Your task to perform on an android device: Open settings on Google Maps Image 0: 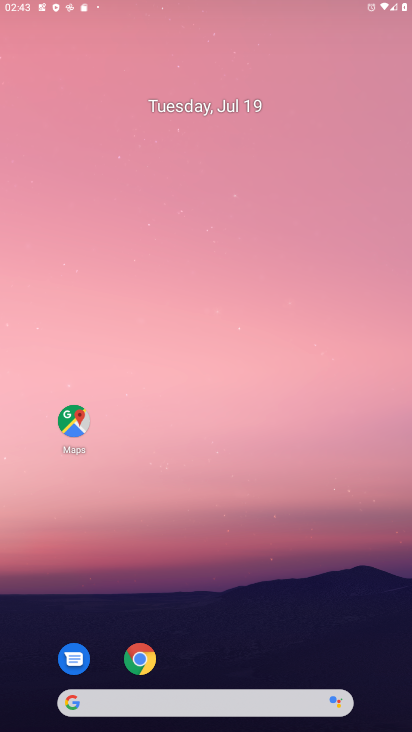
Step 0: press home button
Your task to perform on an android device: Open settings on Google Maps Image 1: 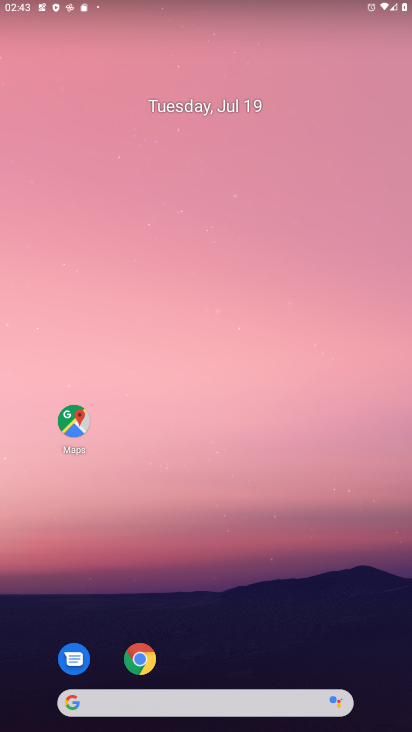
Step 1: click (69, 427)
Your task to perform on an android device: Open settings on Google Maps Image 2: 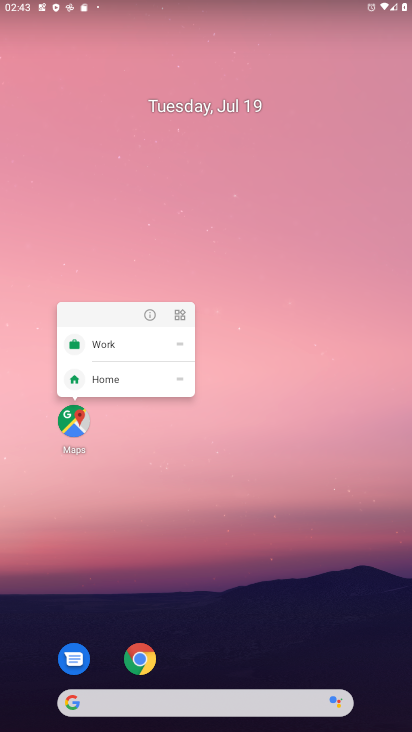
Step 2: click (69, 427)
Your task to perform on an android device: Open settings on Google Maps Image 3: 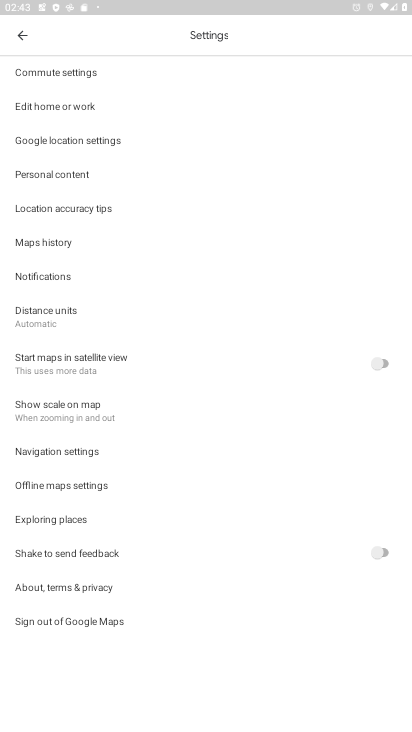
Step 3: task complete